Your task to perform on an android device: Search for the best 100% cotton t-shirts Image 0: 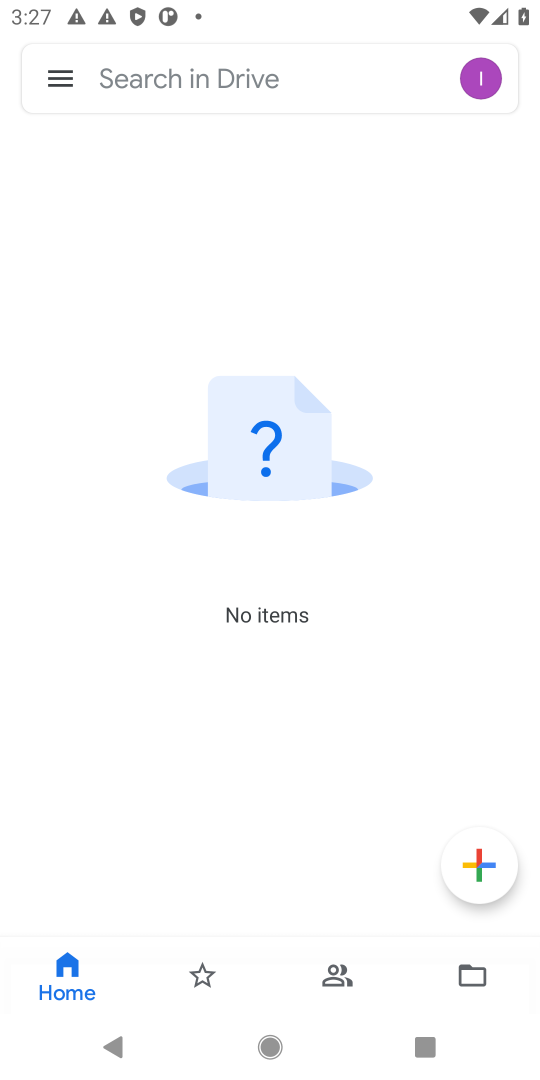
Step 0: press home button
Your task to perform on an android device: Search for the best 100% cotton t-shirts Image 1: 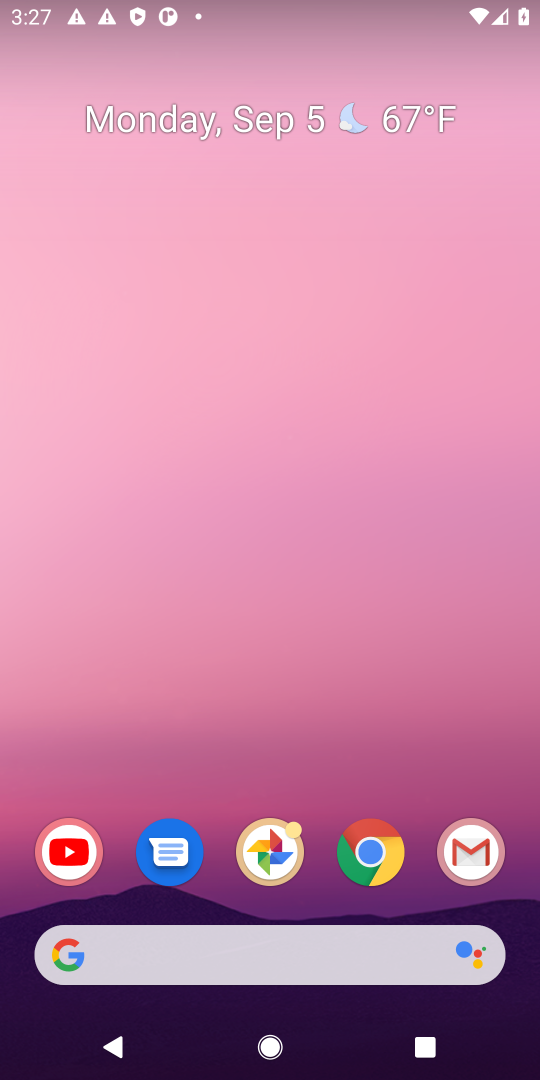
Step 1: click (365, 853)
Your task to perform on an android device: Search for the best 100% cotton t-shirts Image 2: 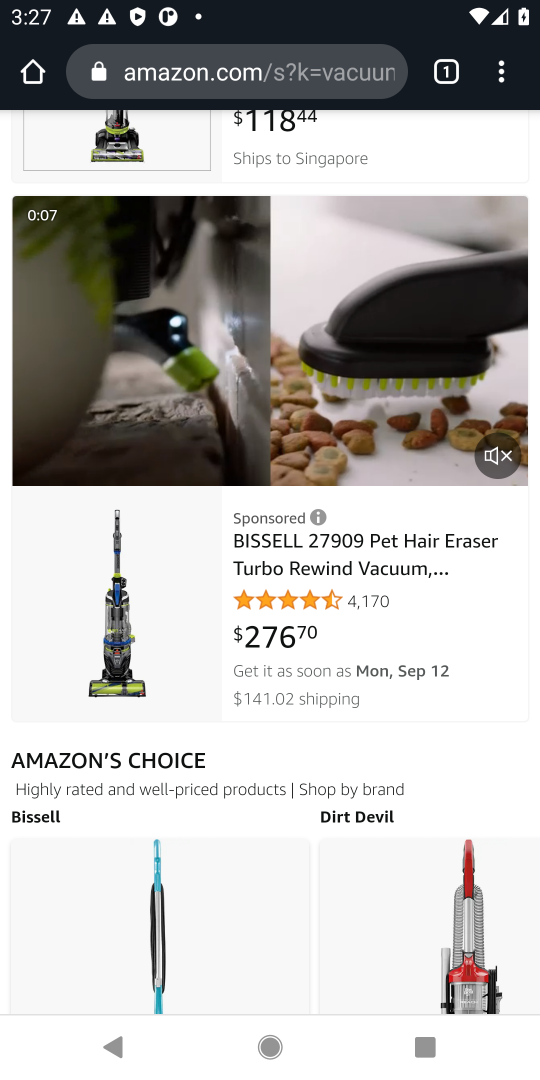
Step 2: click (318, 55)
Your task to perform on an android device: Search for the best 100% cotton t-shirts Image 3: 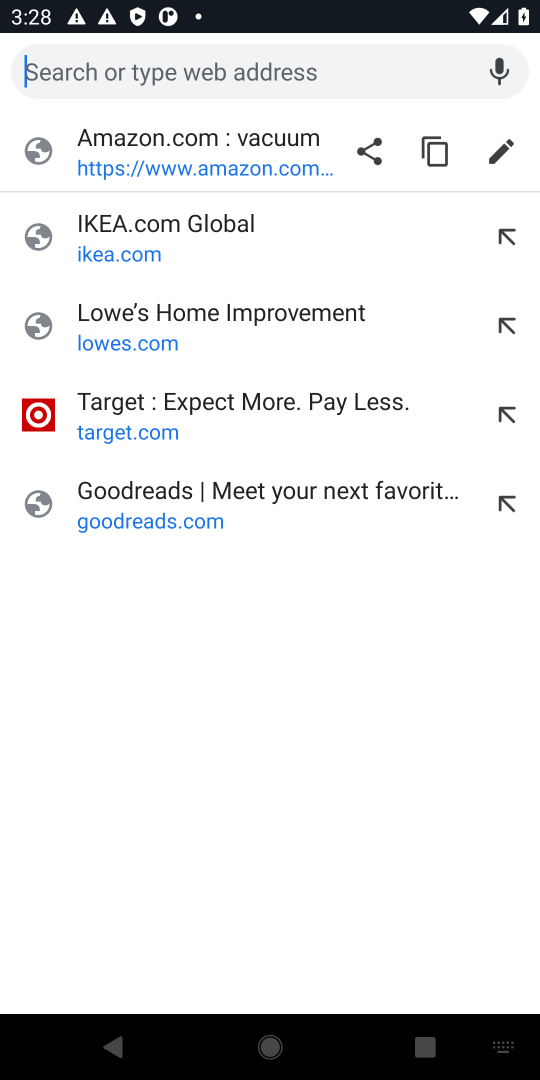
Step 3: type "100% cotton t-shirts"
Your task to perform on an android device: Search for the best 100% cotton t-shirts Image 4: 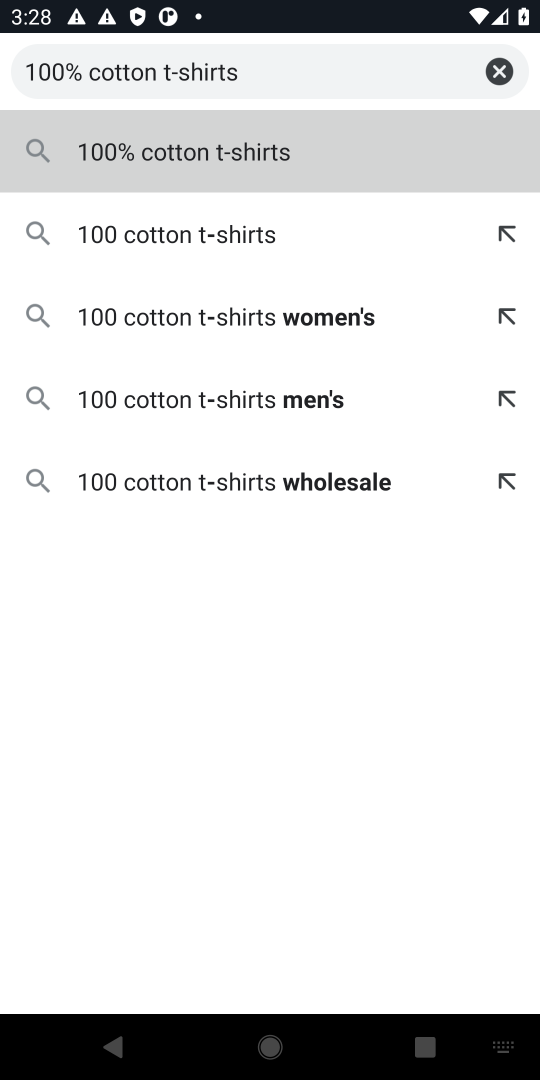
Step 4: click (131, 157)
Your task to perform on an android device: Search for the best 100% cotton t-shirts Image 5: 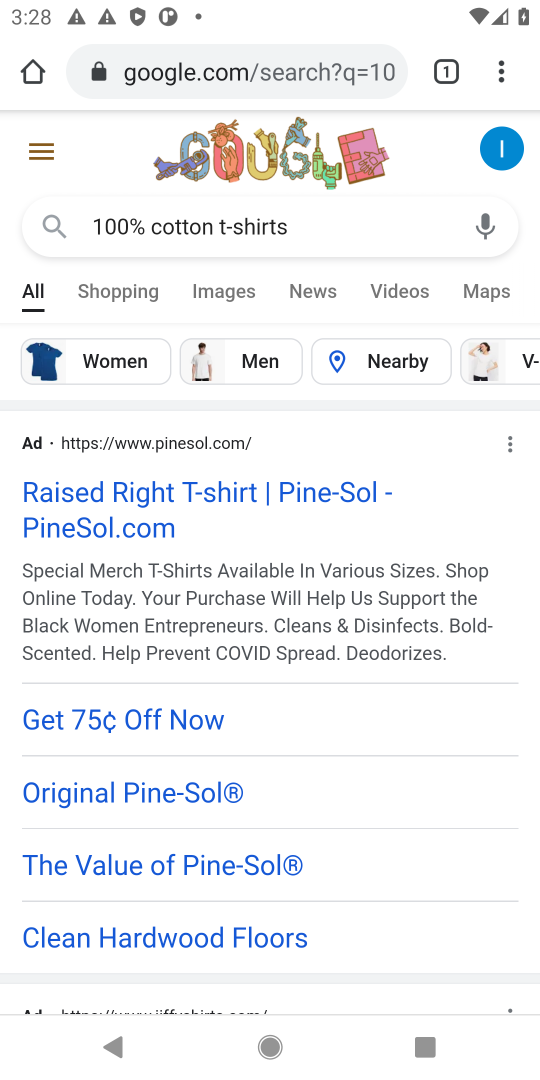
Step 5: task complete